Your task to perform on an android device: all mails in gmail Image 0: 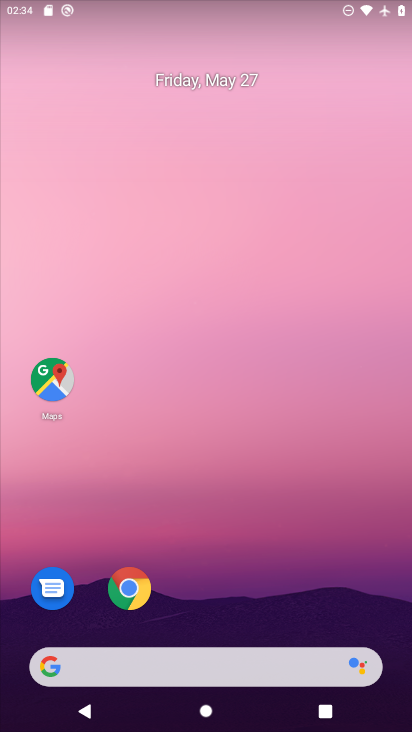
Step 0: drag from (386, 613) to (350, 98)
Your task to perform on an android device: all mails in gmail Image 1: 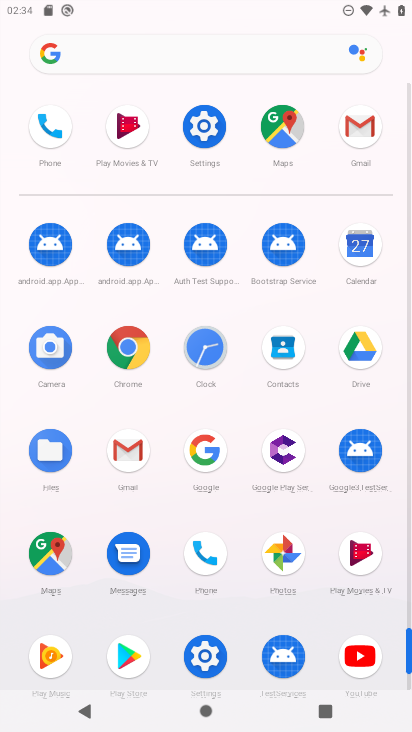
Step 1: click (125, 451)
Your task to perform on an android device: all mails in gmail Image 2: 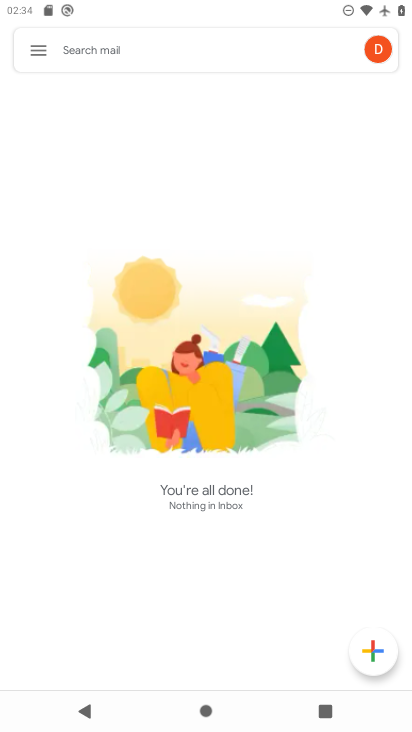
Step 2: click (41, 47)
Your task to perform on an android device: all mails in gmail Image 3: 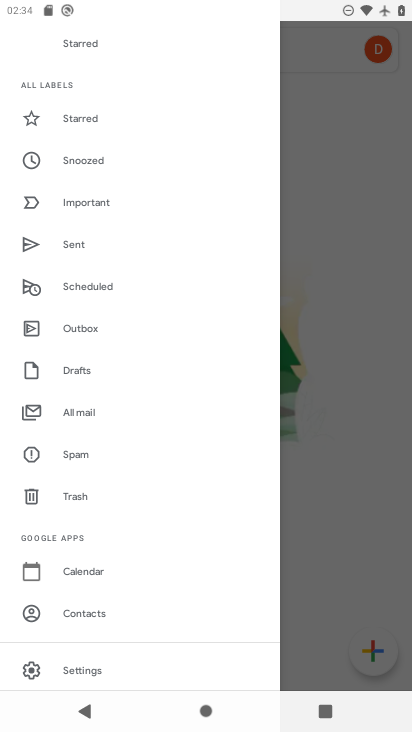
Step 3: click (78, 410)
Your task to perform on an android device: all mails in gmail Image 4: 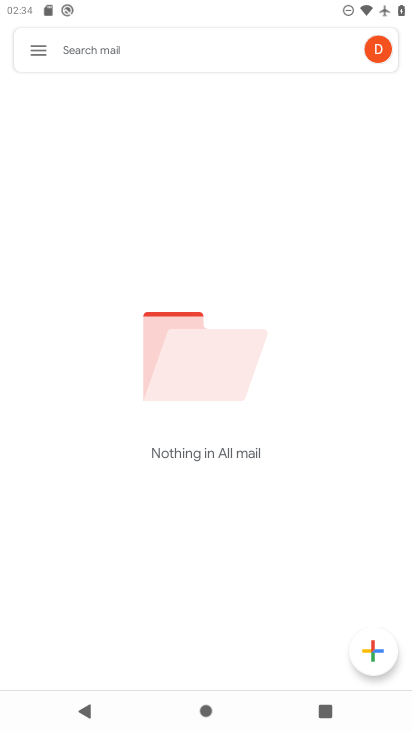
Step 4: task complete